Your task to perform on an android device: make emails show in primary in the gmail app Image 0: 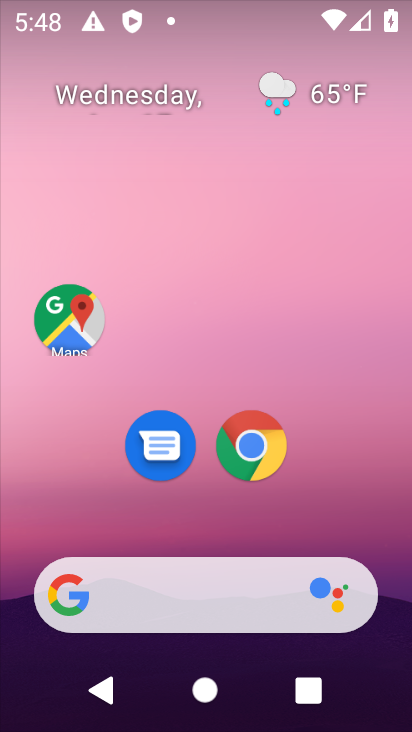
Step 0: drag from (214, 533) to (238, 151)
Your task to perform on an android device: make emails show in primary in the gmail app Image 1: 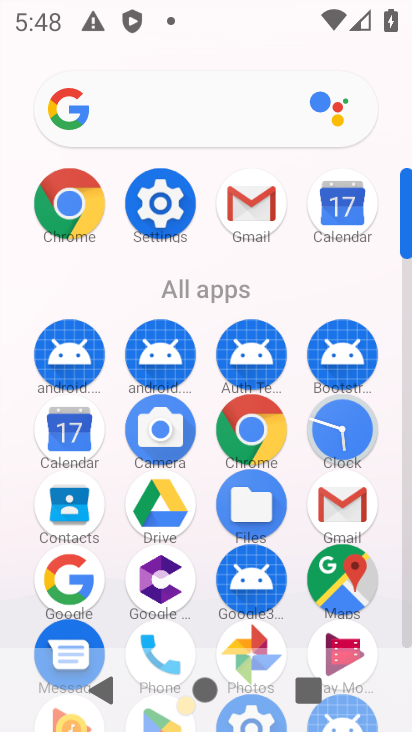
Step 1: click (257, 221)
Your task to perform on an android device: make emails show in primary in the gmail app Image 2: 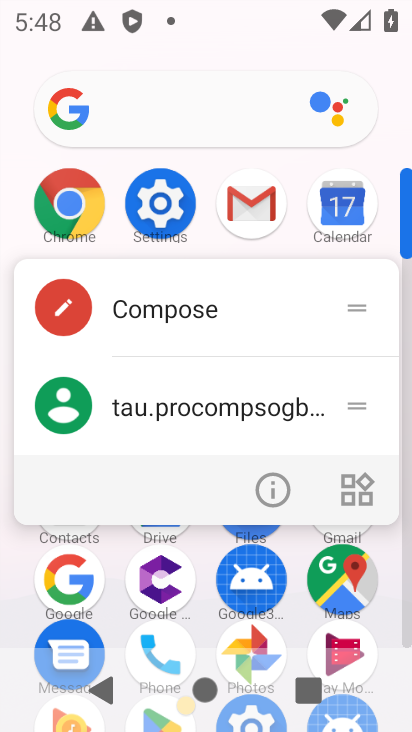
Step 2: click (259, 206)
Your task to perform on an android device: make emails show in primary in the gmail app Image 3: 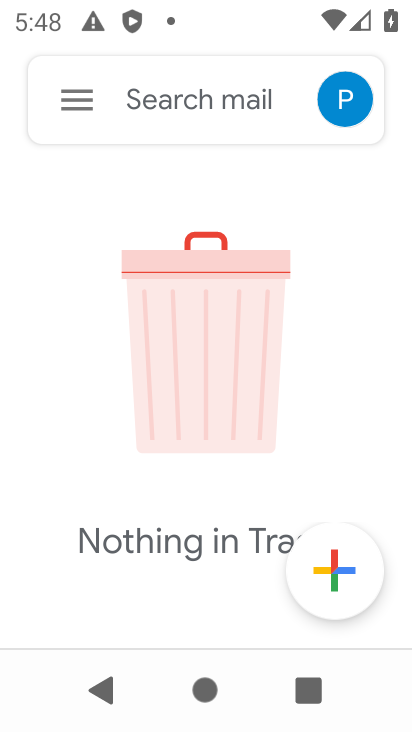
Step 3: click (60, 104)
Your task to perform on an android device: make emails show in primary in the gmail app Image 4: 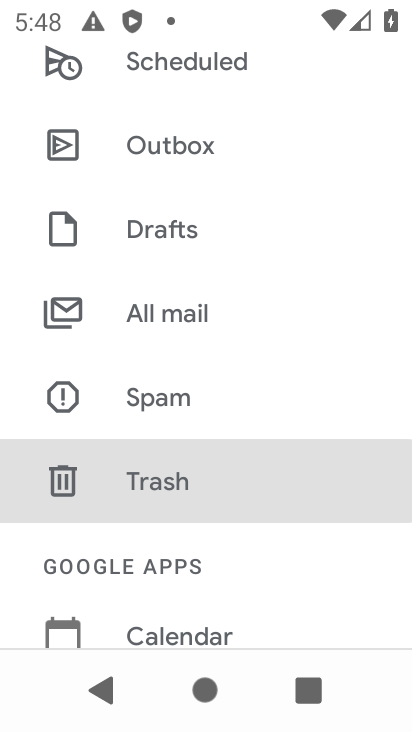
Step 4: drag from (184, 557) to (221, 227)
Your task to perform on an android device: make emails show in primary in the gmail app Image 5: 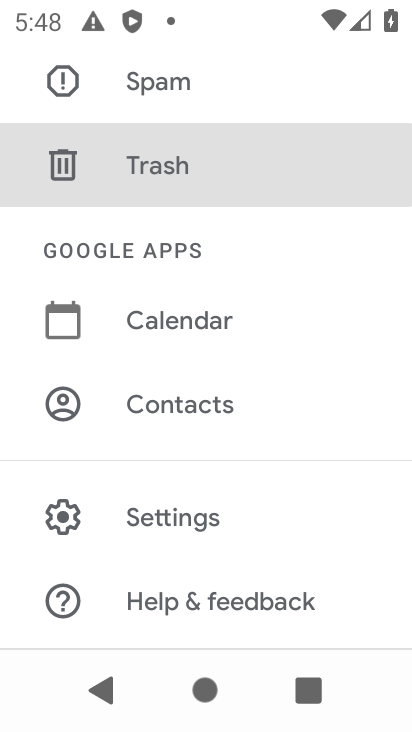
Step 5: click (188, 506)
Your task to perform on an android device: make emails show in primary in the gmail app Image 6: 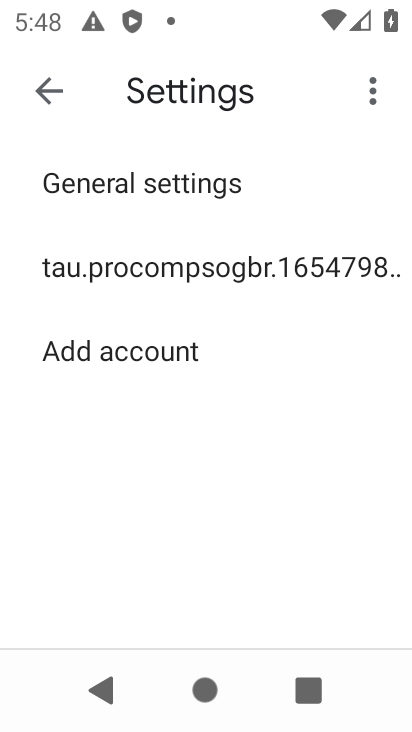
Step 6: click (172, 278)
Your task to perform on an android device: make emails show in primary in the gmail app Image 7: 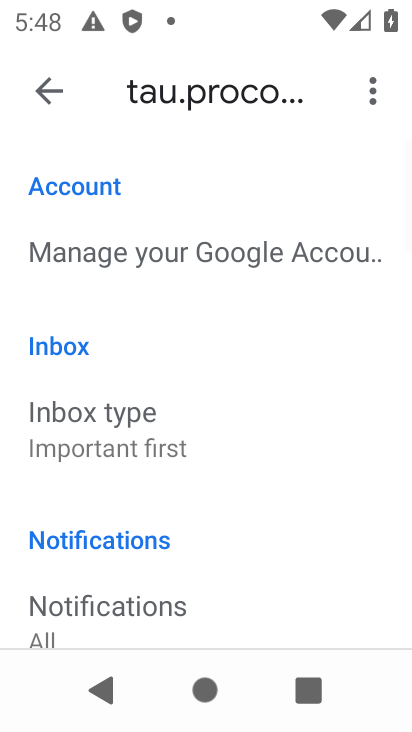
Step 7: click (145, 412)
Your task to perform on an android device: make emails show in primary in the gmail app Image 8: 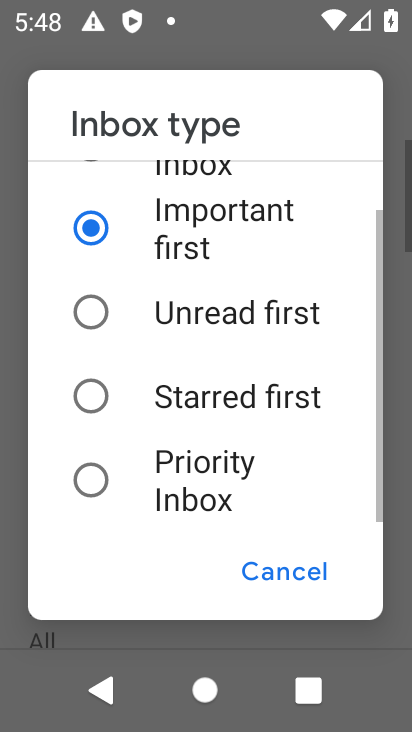
Step 8: drag from (192, 213) to (209, 501)
Your task to perform on an android device: make emails show in primary in the gmail app Image 9: 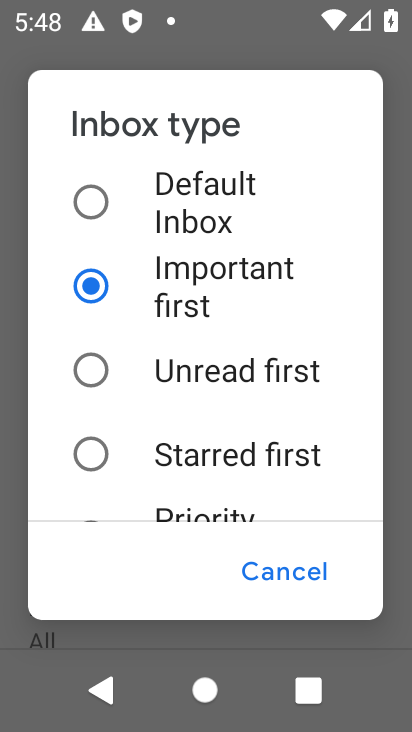
Step 9: click (174, 186)
Your task to perform on an android device: make emails show in primary in the gmail app Image 10: 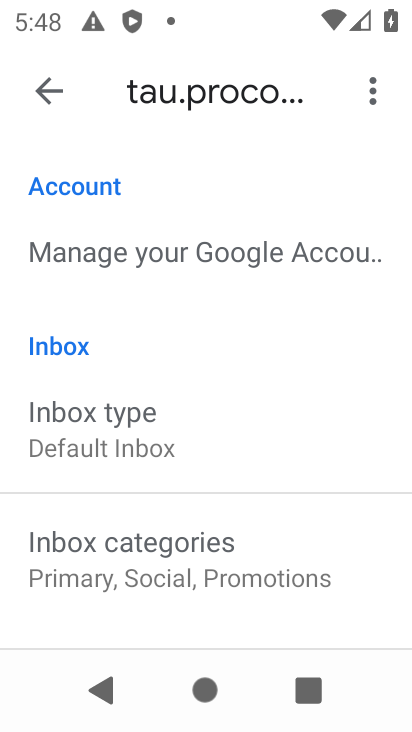
Step 10: task complete